Your task to perform on an android device: turn on notifications settings in the gmail app Image 0: 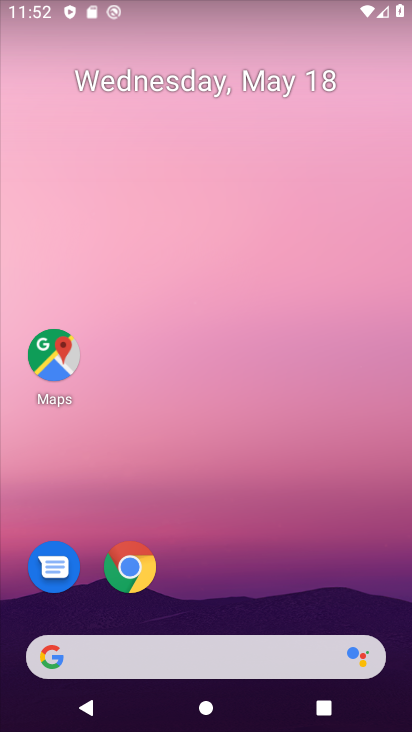
Step 0: drag from (273, 555) to (300, 68)
Your task to perform on an android device: turn on notifications settings in the gmail app Image 1: 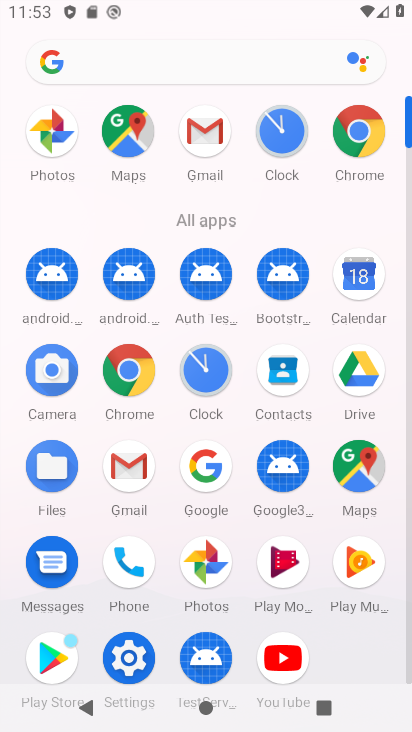
Step 1: click (124, 460)
Your task to perform on an android device: turn on notifications settings in the gmail app Image 2: 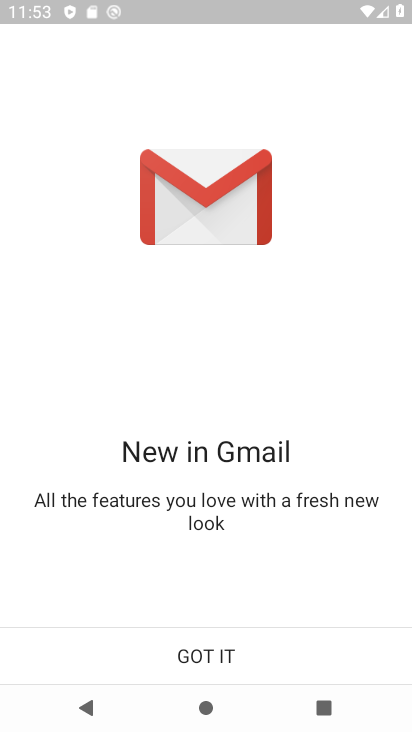
Step 2: click (235, 647)
Your task to perform on an android device: turn on notifications settings in the gmail app Image 3: 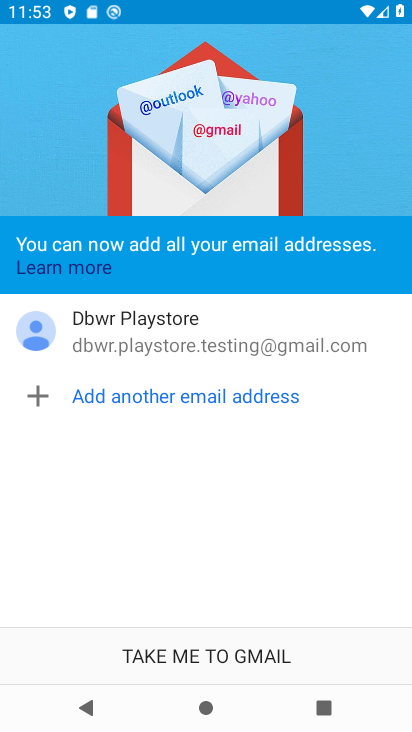
Step 3: click (225, 642)
Your task to perform on an android device: turn on notifications settings in the gmail app Image 4: 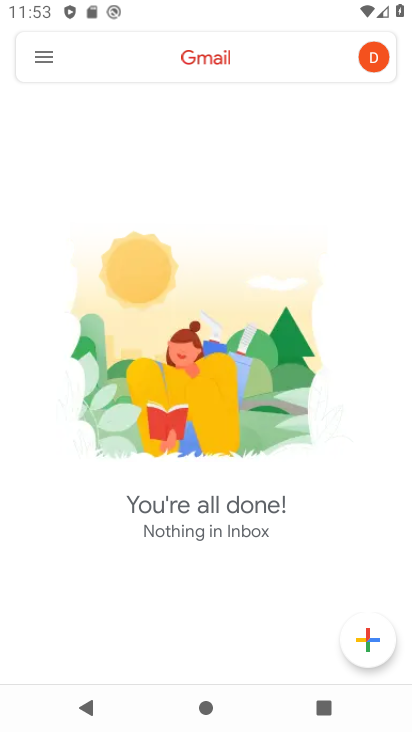
Step 4: click (45, 49)
Your task to perform on an android device: turn on notifications settings in the gmail app Image 5: 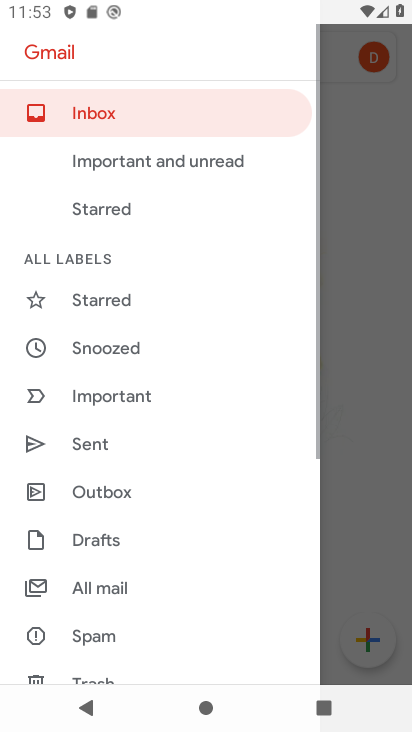
Step 5: drag from (131, 601) to (219, 216)
Your task to perform on an android device: turn on notifications settings in the gmail app Image 6: 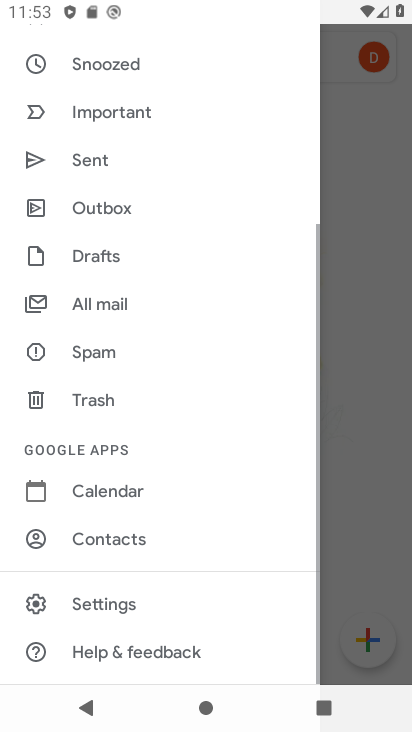
Step 6: click (124, 613)
Your task to perform on an android device: turn on notifications settings in the gmail app Image 7: 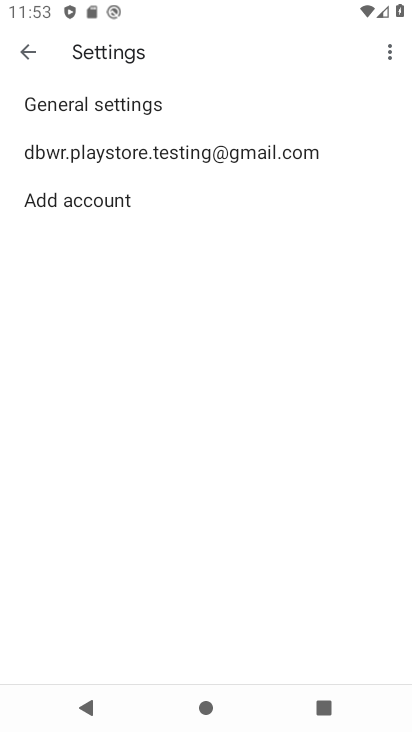
Step 7: click (202, 151)
Your task to perform on an android device: turn on notifications settings in the gmail app Image 8: 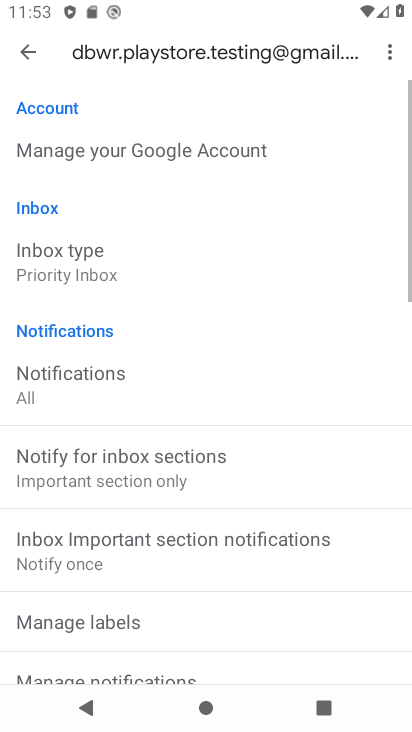
Step 8: drag from (158, 582) to (229, 246)
Your task to perform on an android device: turn on notifications settings in the gmail app Image 9: 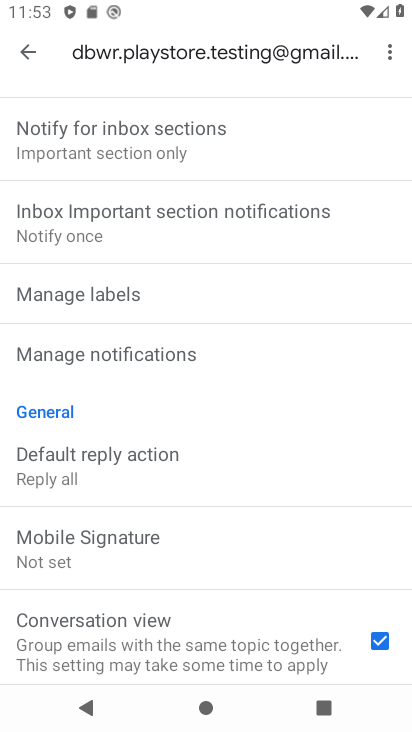
Step 9: drag from (152, 193) to (175, 412)
Your task to perform on an android device: turn on notifications settings in the gmail app Image 10: 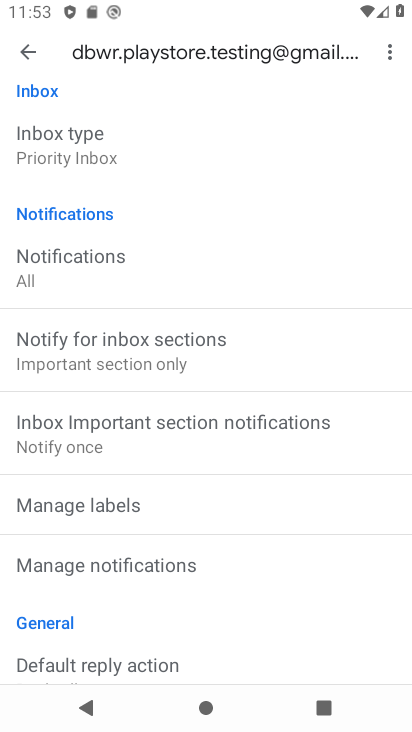
Step 10: click (73, 296)
Your task to perform on an android device: turn on notifications settings in the gmail app Image 11: 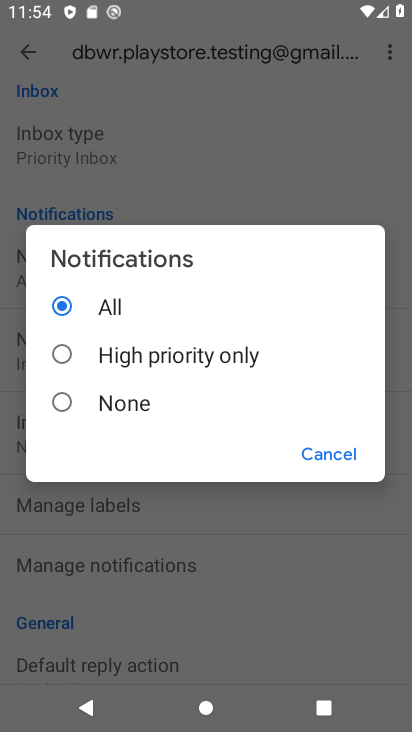
Step 11: task complete